Your task to perform on an android device: turn off notifications settings in the gmail app Image 0: 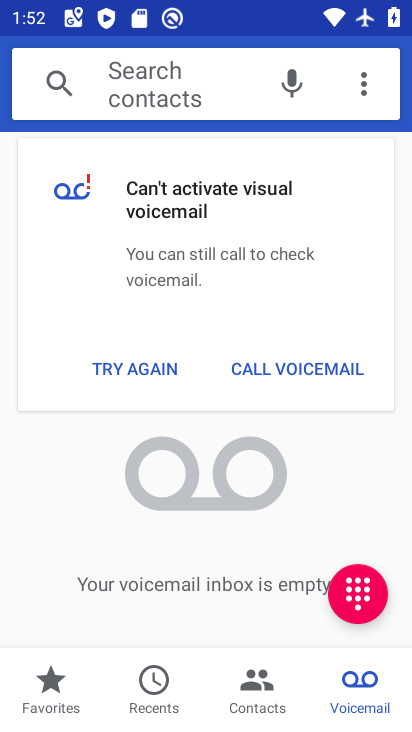
Step 0: press home button
Your task to perform on an android device: turn off notifications settings in the gmail app Image 1: 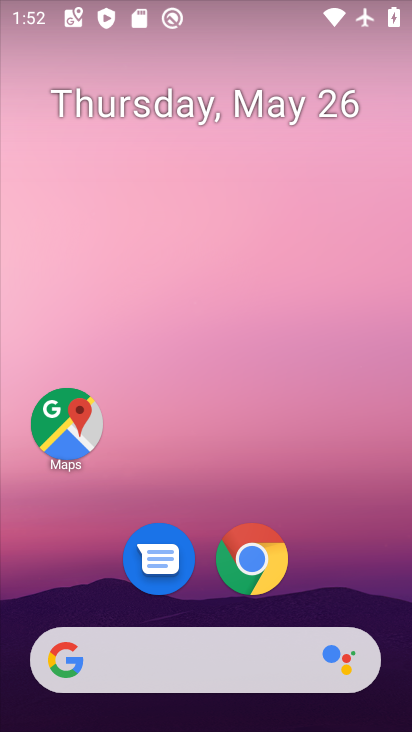
Step 1: drag from (193, 655) to (351, 88)
Your task to perform on an android device: turn off notifications settings in the gmail app Image 2: 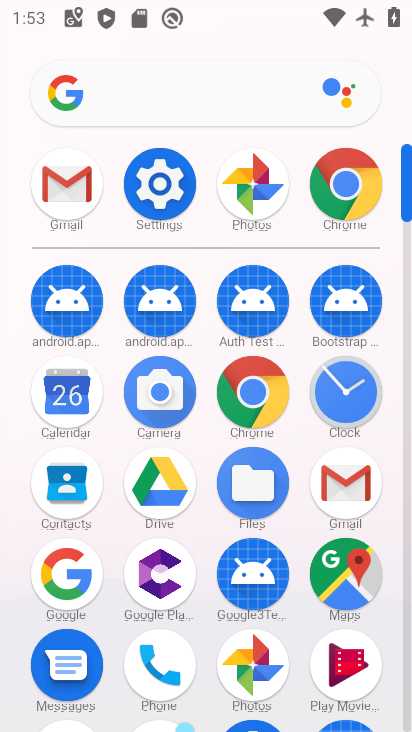
Step 2: click (343, 489)
Your task to perform on an android device: turn off notifications settings in the gmail app Image 3: 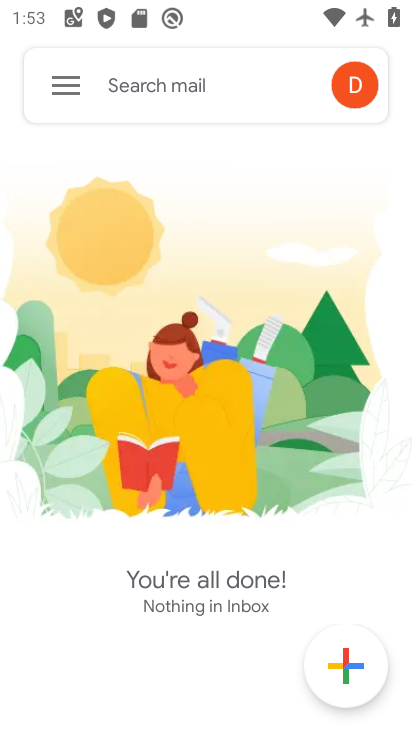
Step 3: click (65, 81)
Your task to perform on an android device: turn off notifications settings in the gmail app Image 4: 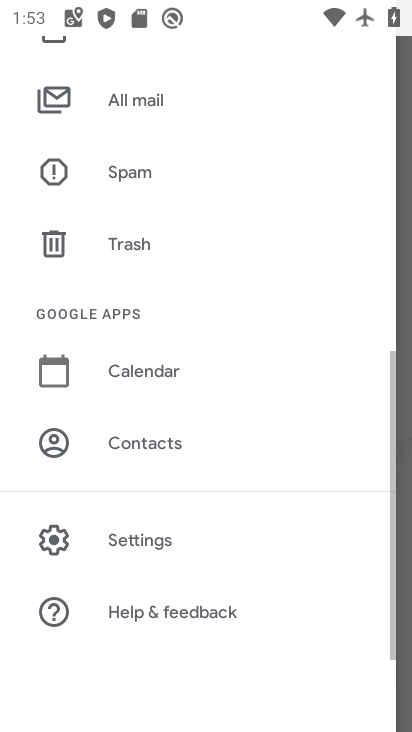
Step 4: click (151, 534)
Your task to perform on an android device: turn off notifications settings in the gmail app Image 5: 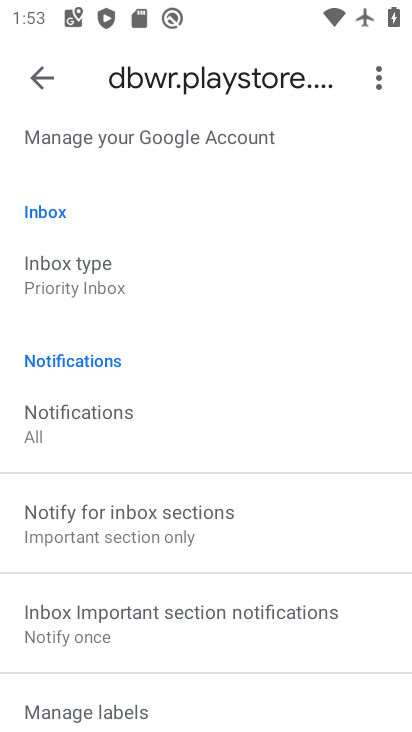
Step 5: click (51, 432)
Your task to perform on an android device: turn off notifications settings in the gmail app Image 6: 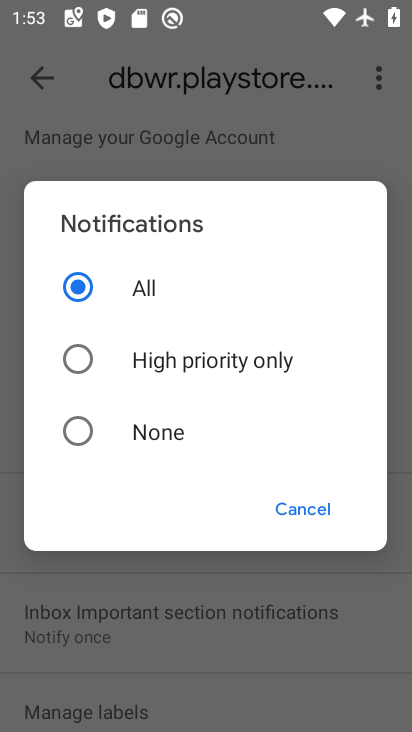
Step 6: click (78, 433)
Your task to perform on an android device: turn off notifications settings in the gmail app Image 7: 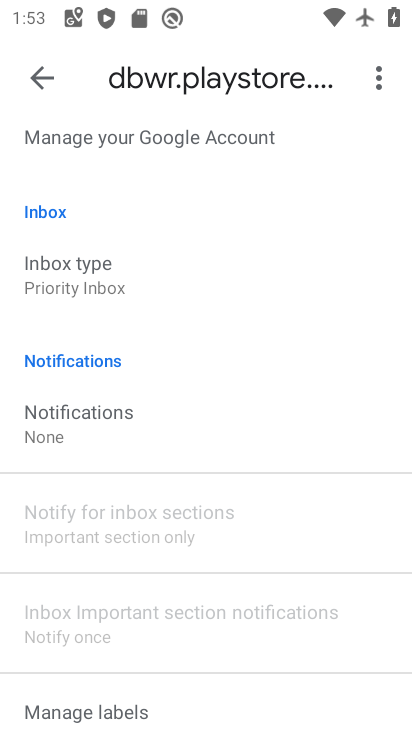
Step 7: task complete